Your task to perform on an android device: Open eBay Image 0: 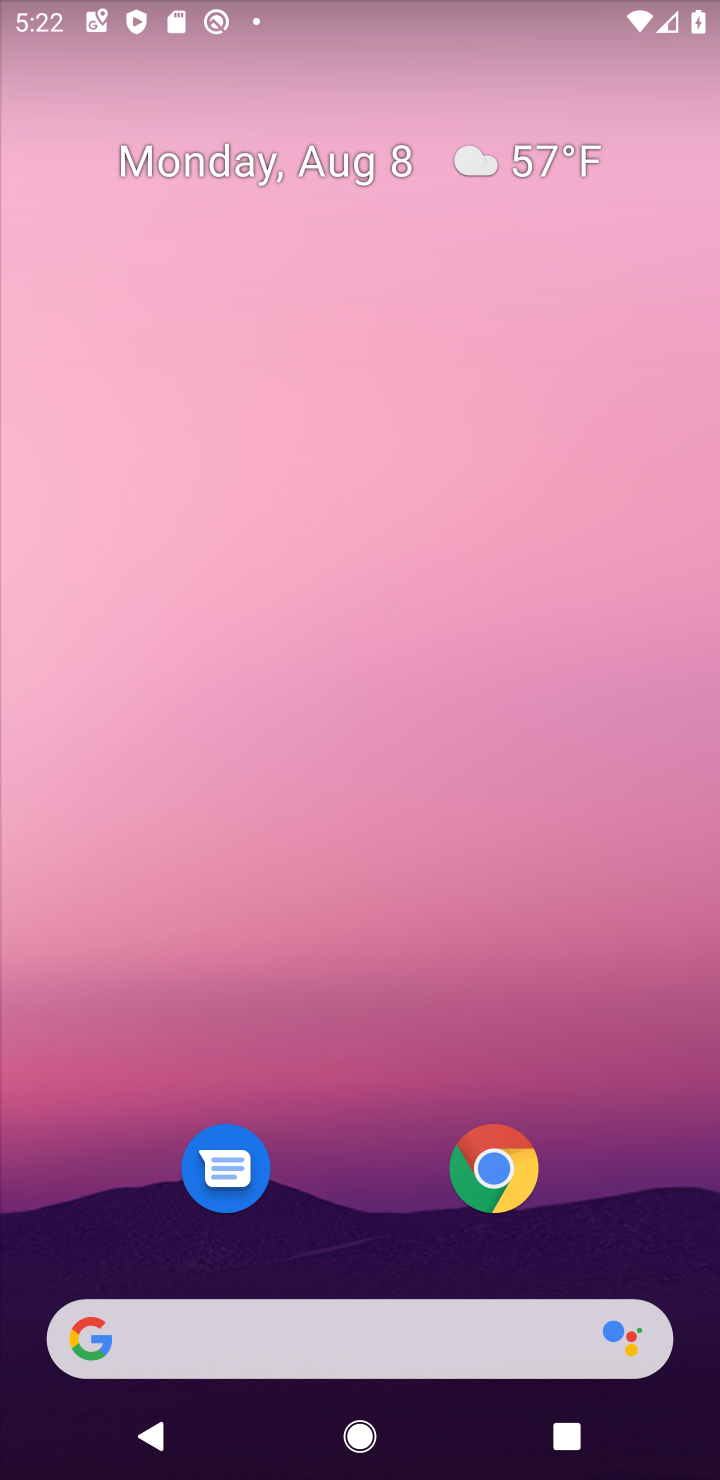
Step 0: click (484, 1183)
Your task to perform on an android device: Open eBay Image 1: 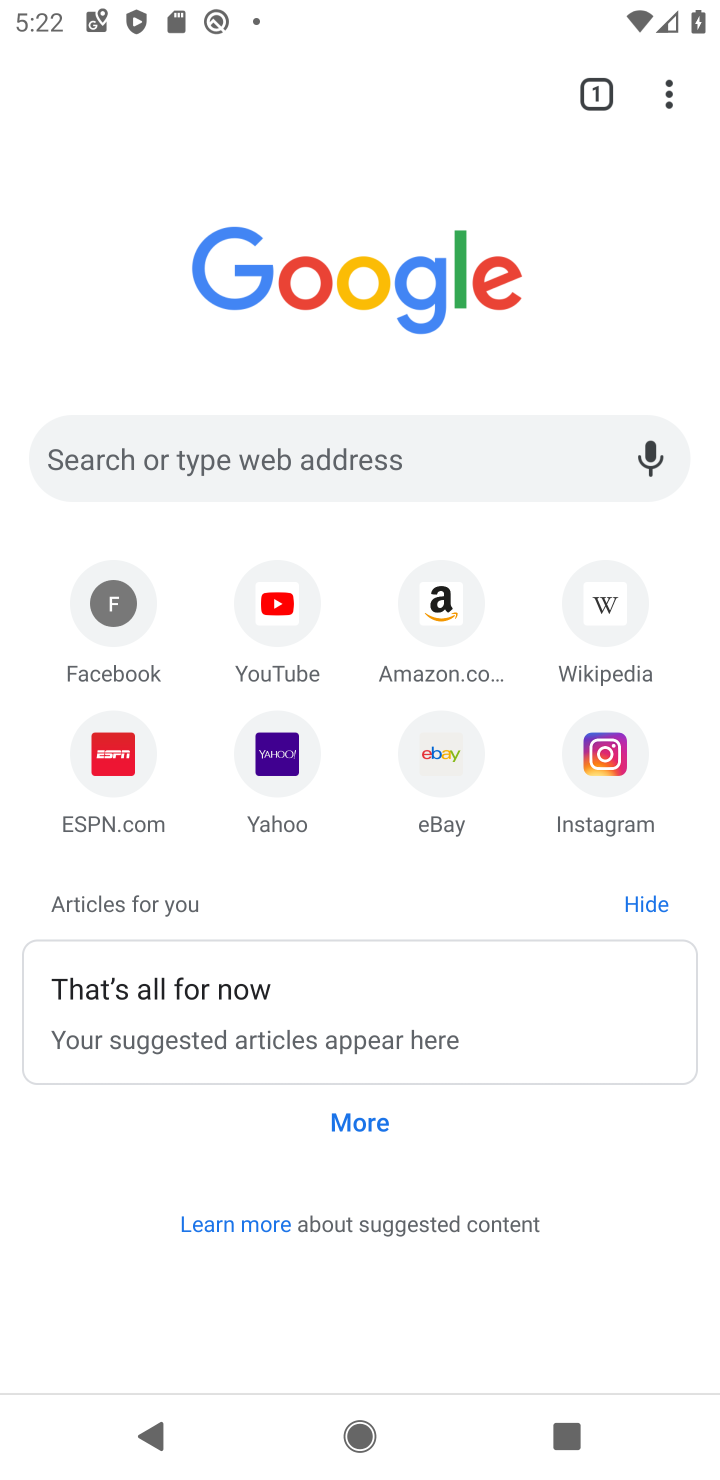
Step 1: click (437, 764)
Your task to perform on an android device: Open eBay Image 2: 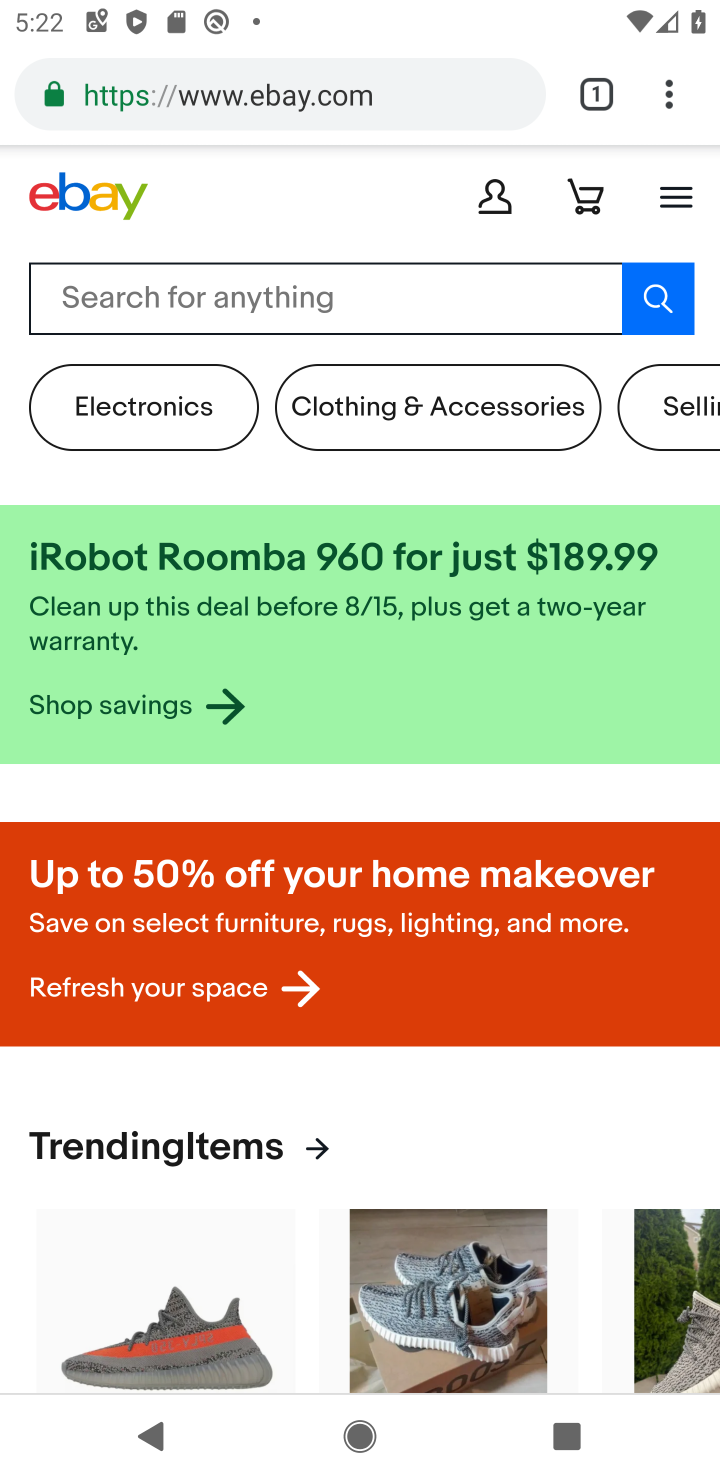
Step 2: task complete